Your task to perform on an android device: turn off wifi Image 0: 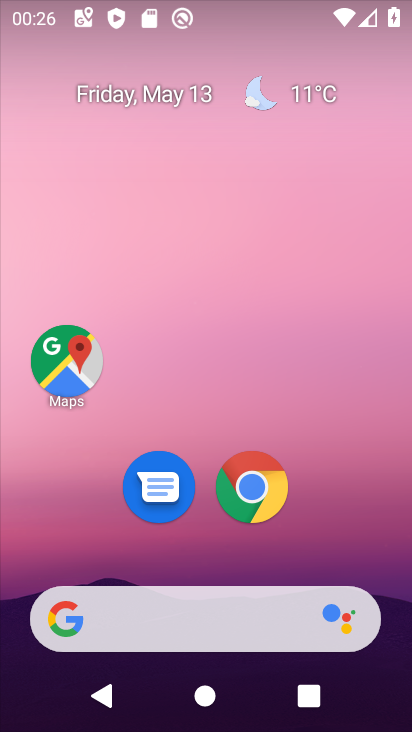
Step 0: drag from (201, 0) to (272, 311)
Your task to perform on an android device: turn off wifi Image 1: 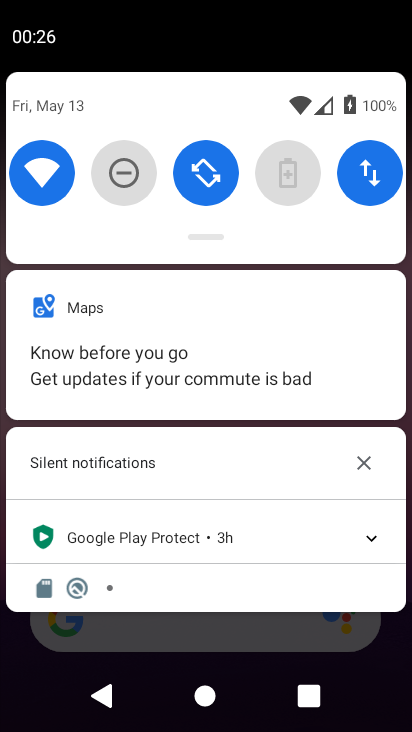
Step 1: click (51, 169)
Your task to perform on an android device: turn off wifi Image 2: 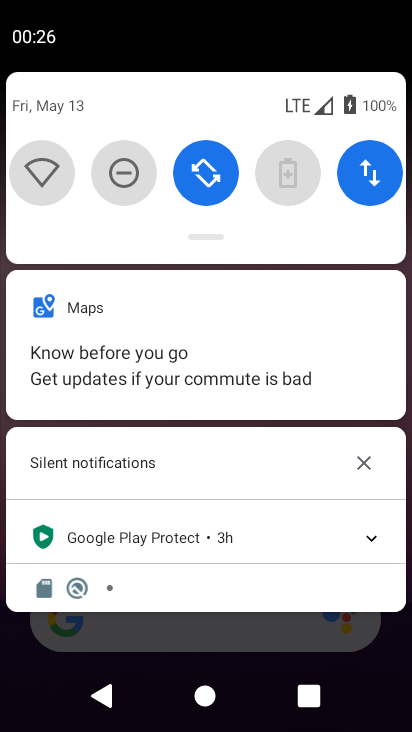
Step 2: task complete